Your task to perform on an android device: turn on location history Image 0: 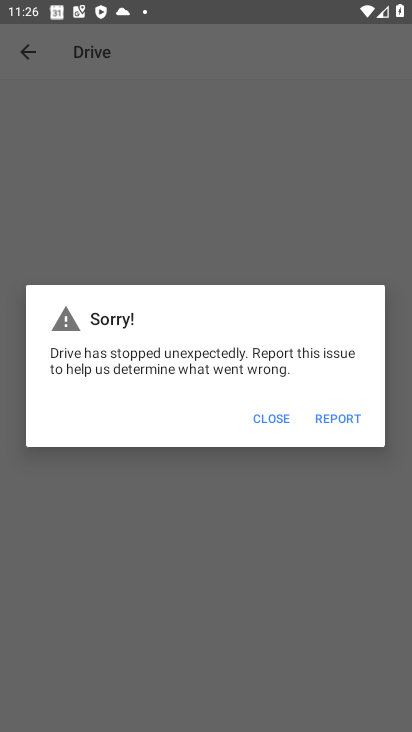
Step 0: press home button
Your task to perform on an android device: turn on location history Image 1: 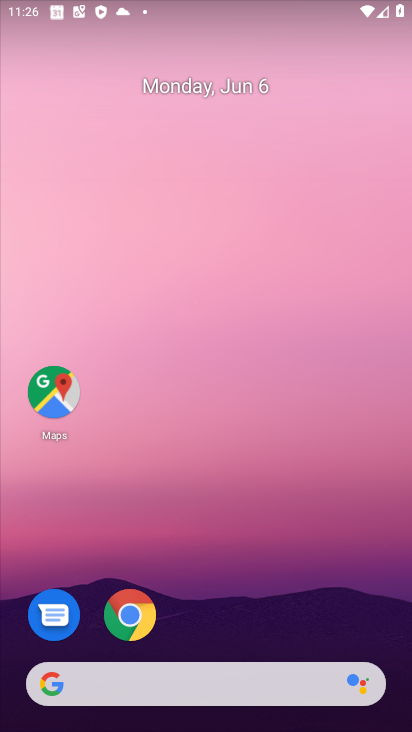
Step 1: drag from (344, 594) to (233, 95)
Your task to perform on an android device: turn on location history Image 2: 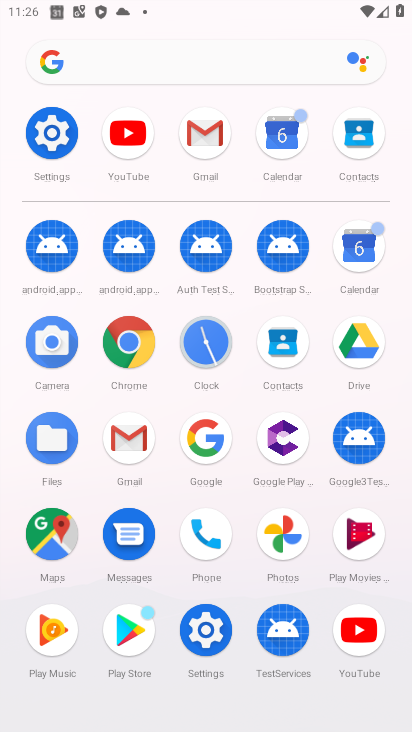
Step 2: click (60, 146)
Your task to perform on an android device: turn on location history Image 3: 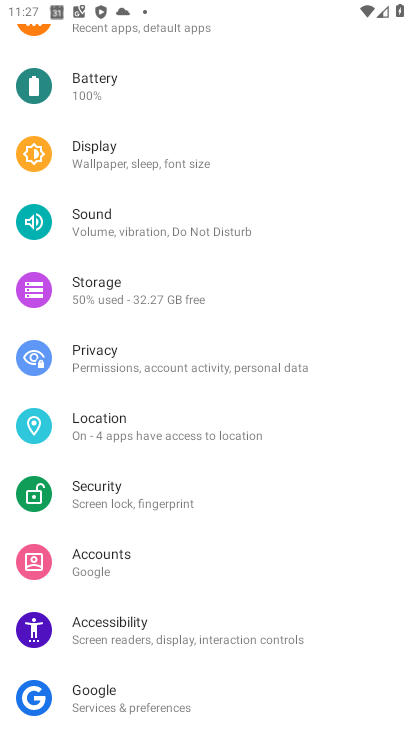
Step 3: click (148, 420)
Your task to perform on an android device: turn on location history Image 4: 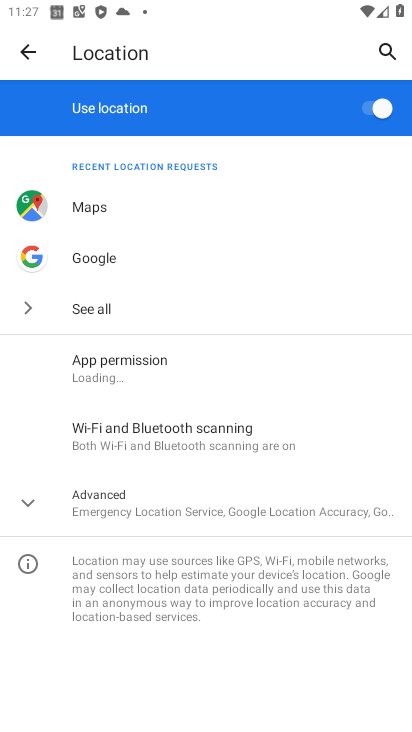
Step 4: task complete